Your task to perform on an android device: Do I have any events tomorrow? Image 0: 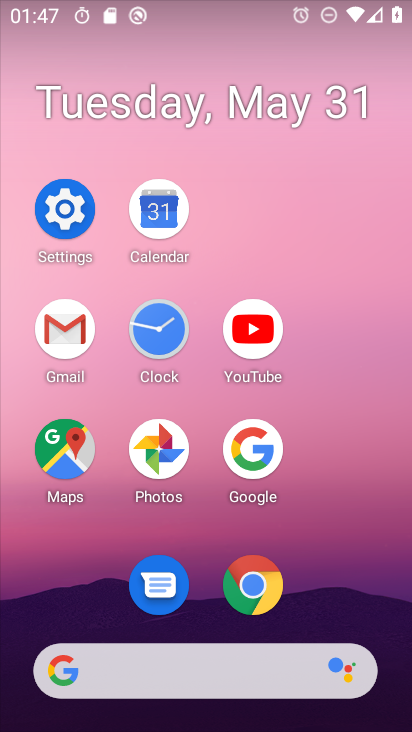
Step 0: click (165, 226)
Your task to perform on an android device: Do I have any events tomorrow? Image 1: 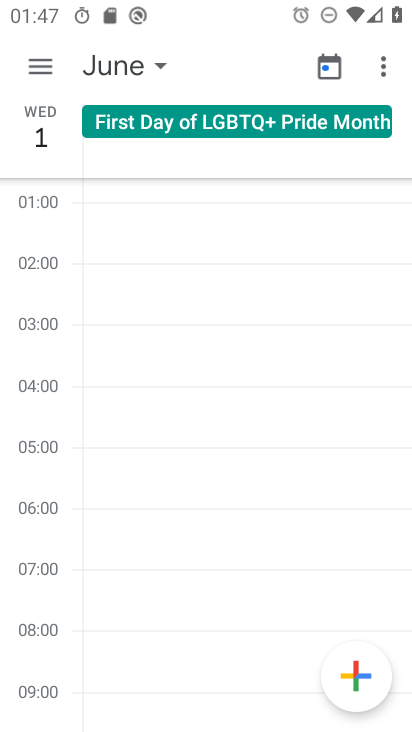
Step 1: task complete